Your task to perform on an android device: Set the phone to "Do not disturb". Image 0: 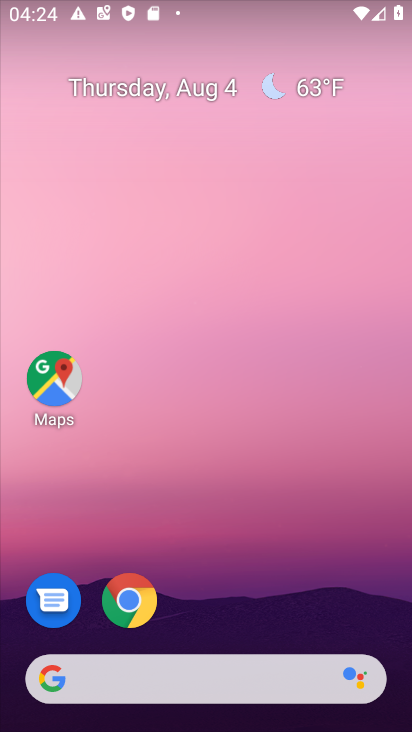
Step 0: drag from (249, 593) to (283, 92)
Your task to perform on an android device: Set the phone to "Do not disturb". Image 1: 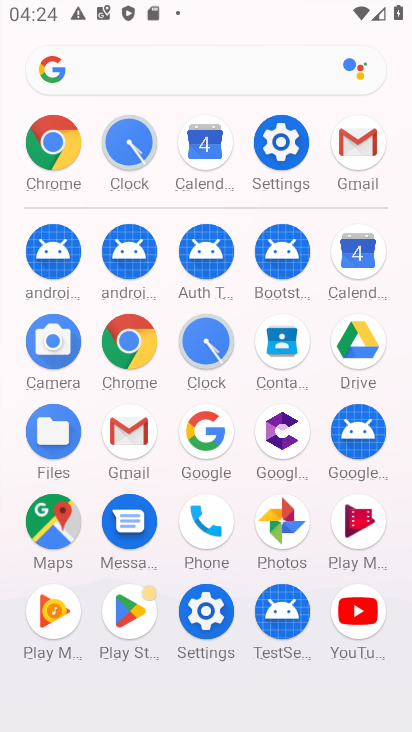
Step 1: drag from (252, 6) to (243, 523)
Your task to perform on an android device: Set the phone to "Do not disturb". Image 2: 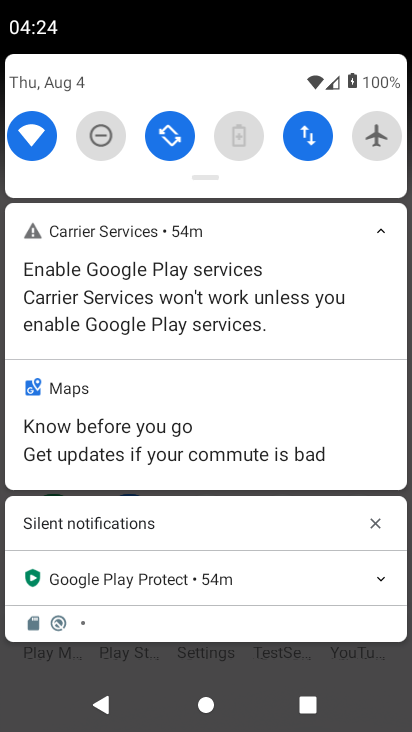
Step 2: click (106, 130)
Your task to perform on an android device: Set the phone to "Do not disturb". Image 3: 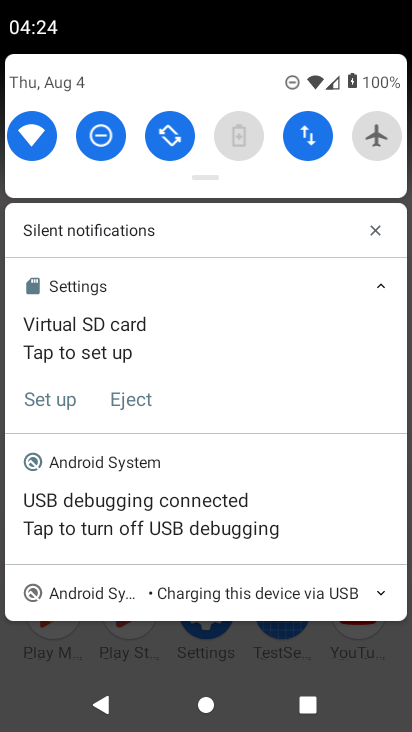
Step 3: task complete